Your task to perform on an android device: toggle improve location accuracy Image 0: 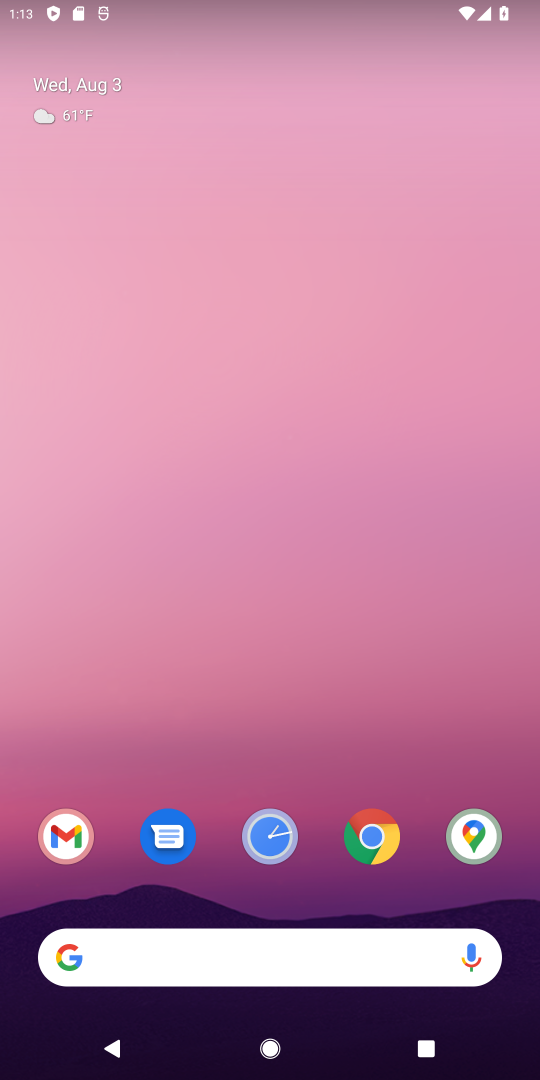
Step 0: drag from (198, 891) to (223, 202)
Your task to perform on an android device: toggle improve location accuracy Image 1: 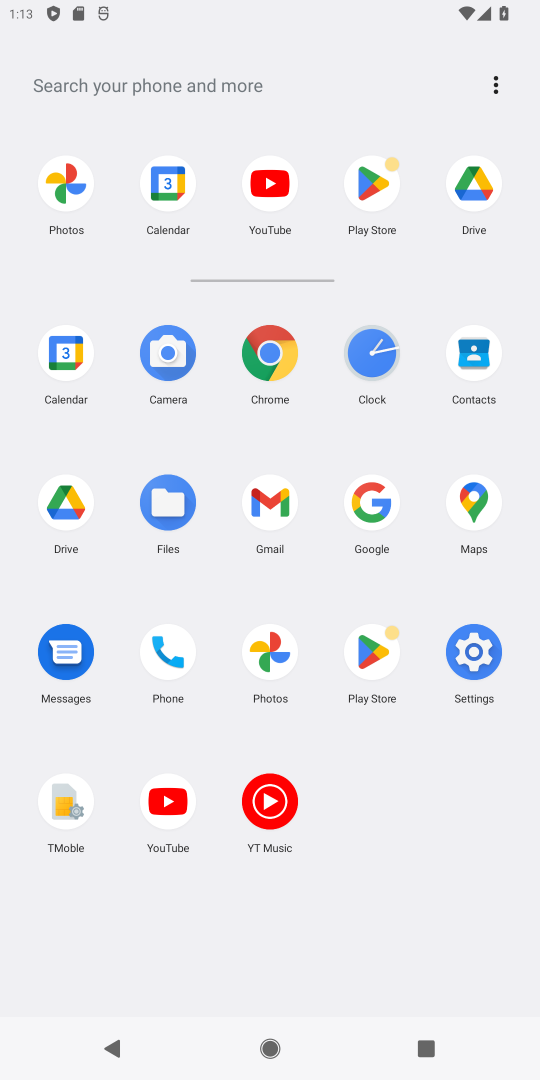
Step 1: click (469, 658)
Your task to perform on an android device: toggle improve location accuracy Image 2: 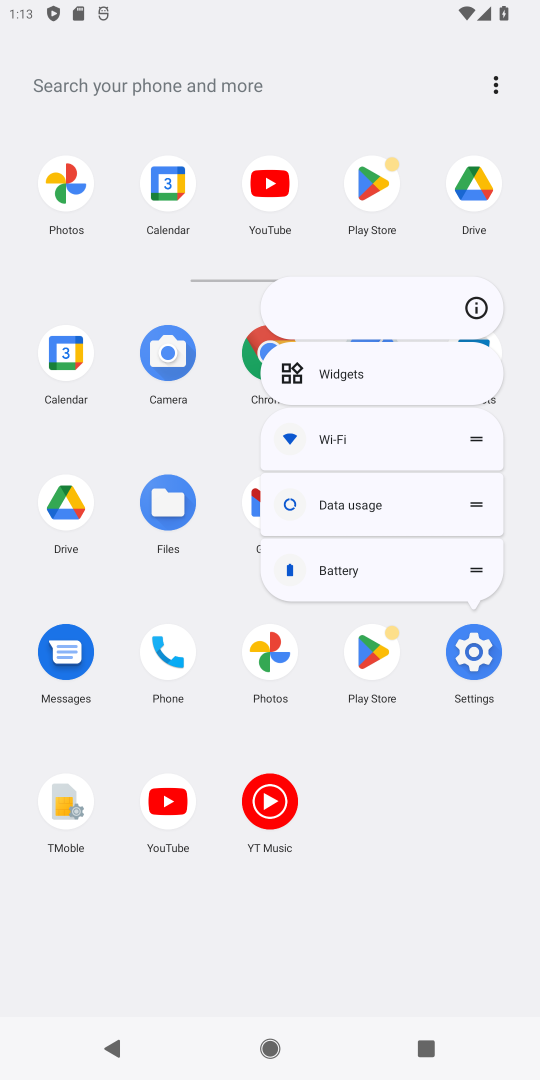
Step 2: click (477, 312)
Your task to perform on an android device: toggle improve location accuracy Image 3: 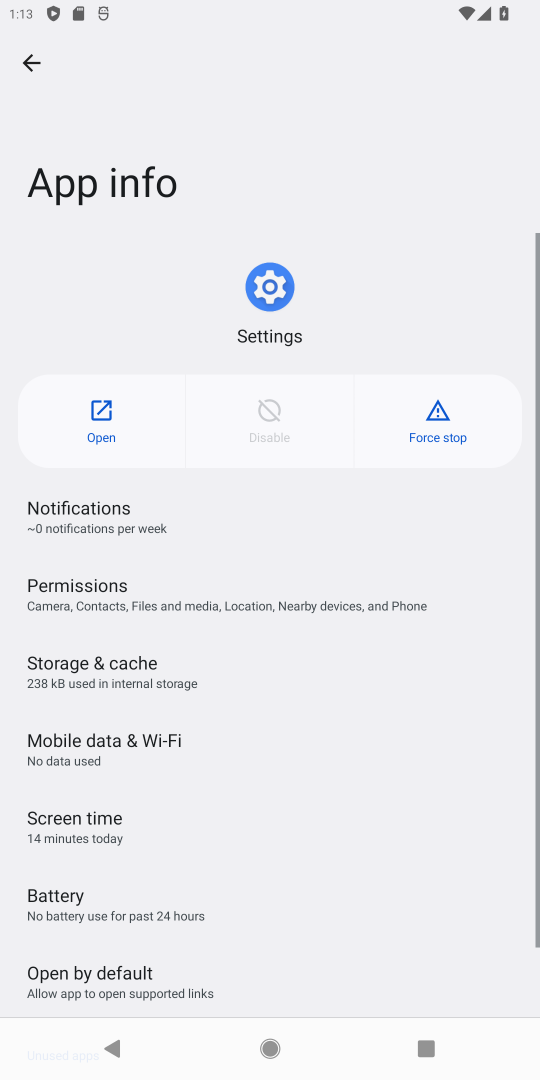
Step 3: click (95, 412)
Your task to perform on an android device: toggle improve location accuracy Image 4: 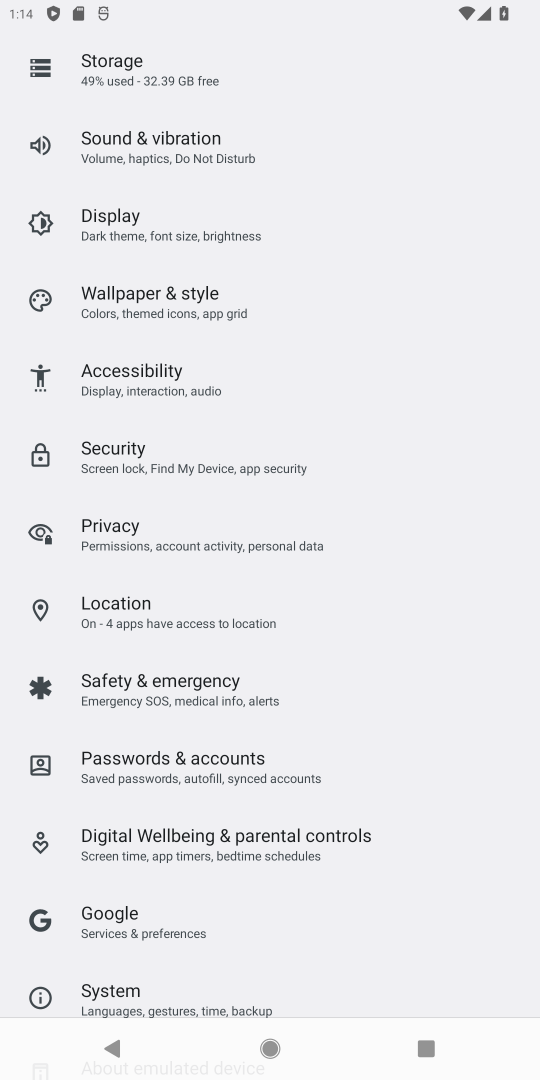
Step 4: drag from (243, 957) to (324, 382)
Your task to perform on an android device: toggle improve location accuracy Image 5: 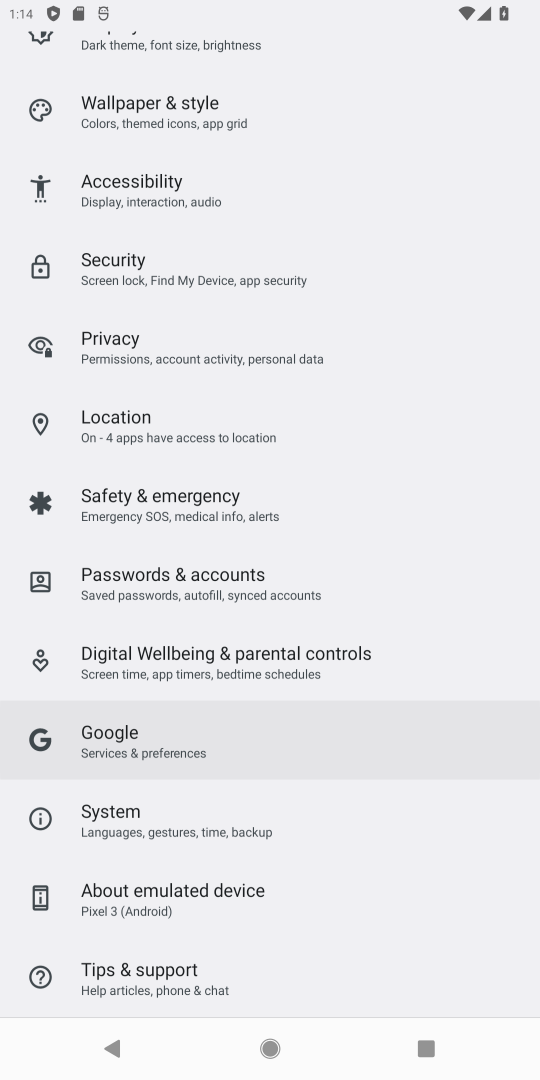
Step 5: drag from (324, 147) to (537, 493)
Your task to perform on an android device: toggle improve location accuracy Image 6: 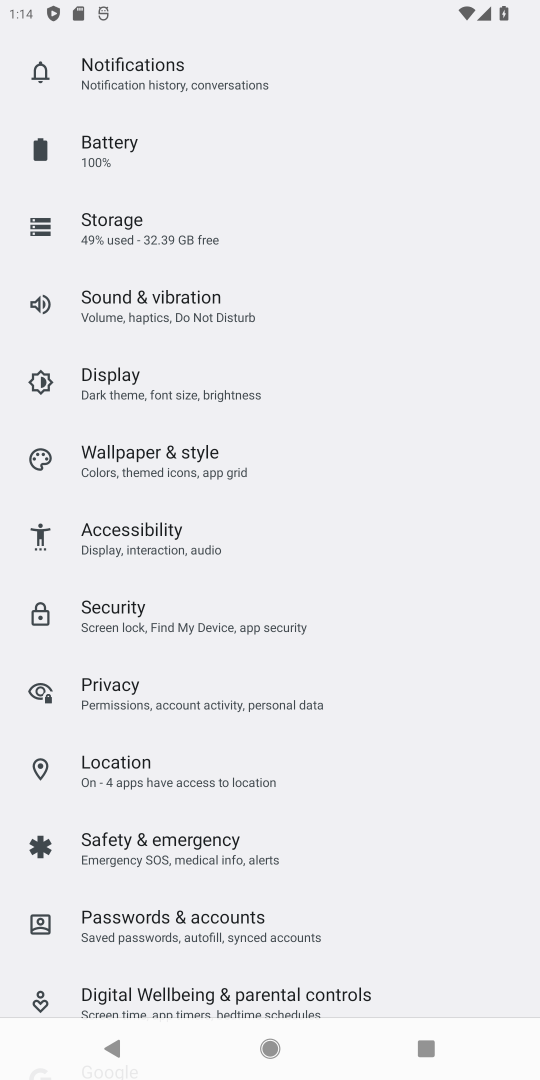
Step 6: drag from (260, 358) to (475, 923)
Your task to perform on an android device: toggle improve location accuracy Image 7: 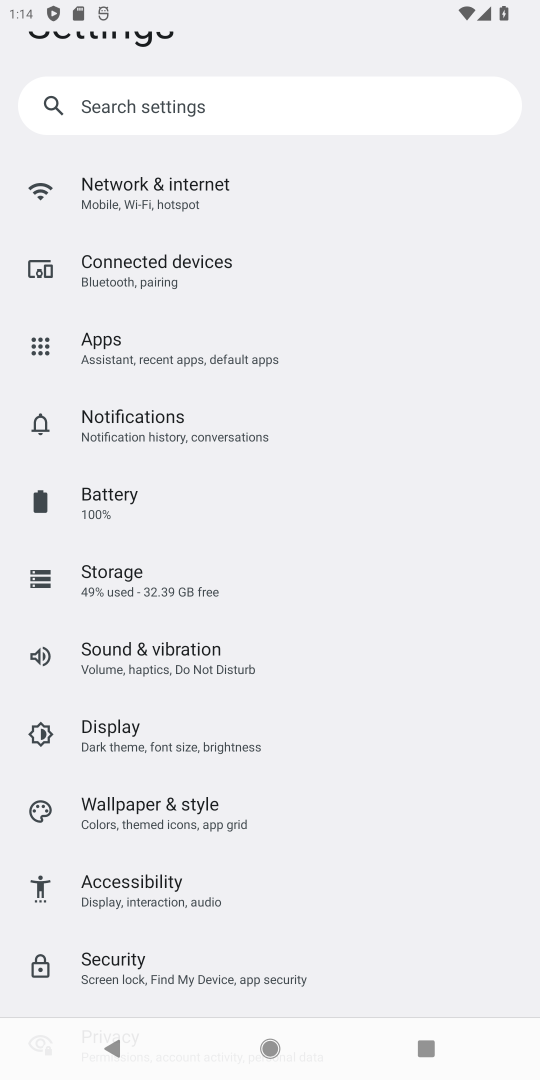
Step 7: drag from (248, 349) to (416, 1015)
Your task to perform on an android device: toggle improve location accuracy Image 8: 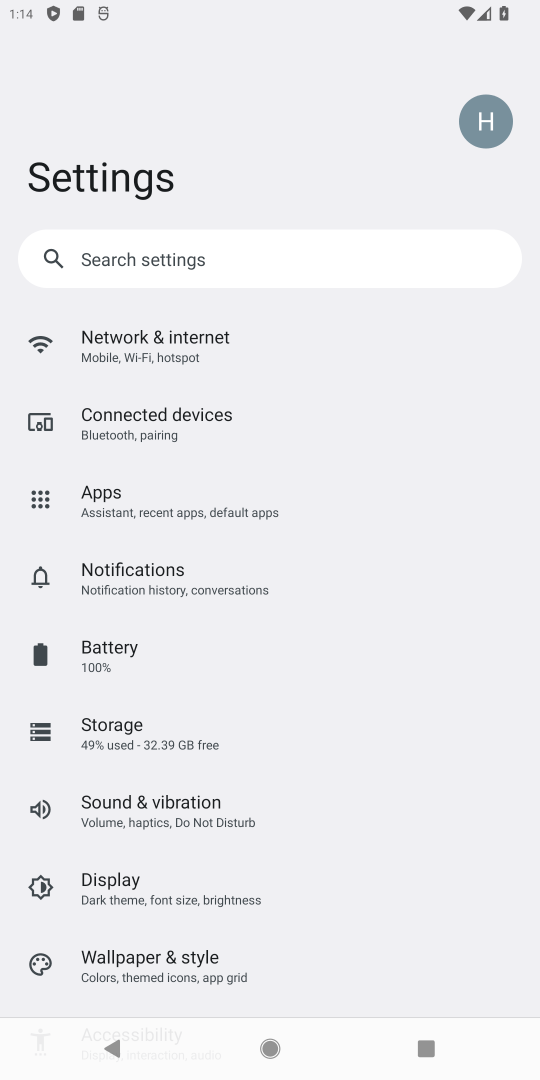
Step 8: drag from (222, 351) to (300, 861)
Your task to perform on an android device: toggle improve location accuracy Image 9: 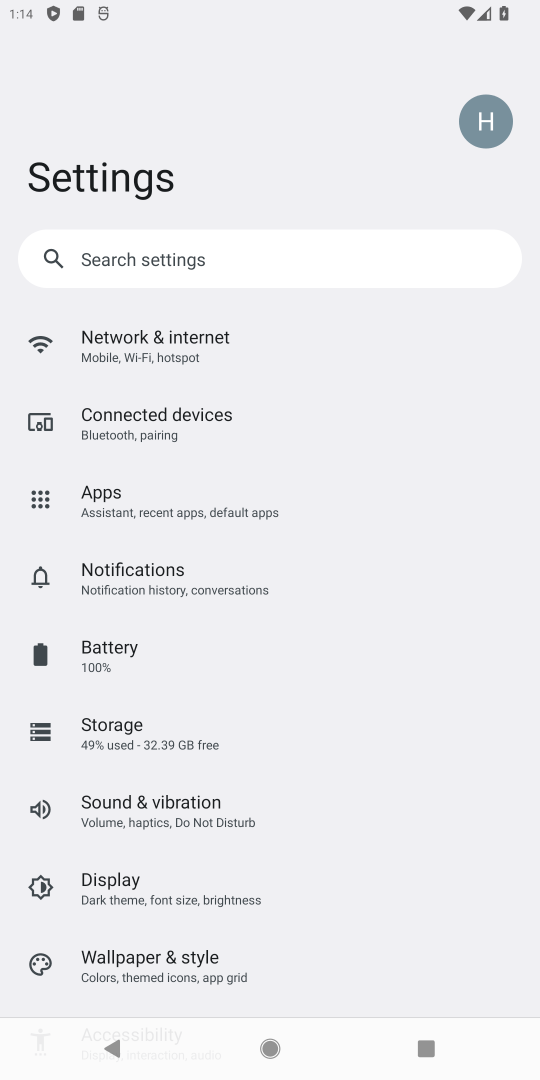
Step 9: drag from (283, 807) to (341, 303)
Your task to perform on an android device: toggle improve location accuracy Image 10: 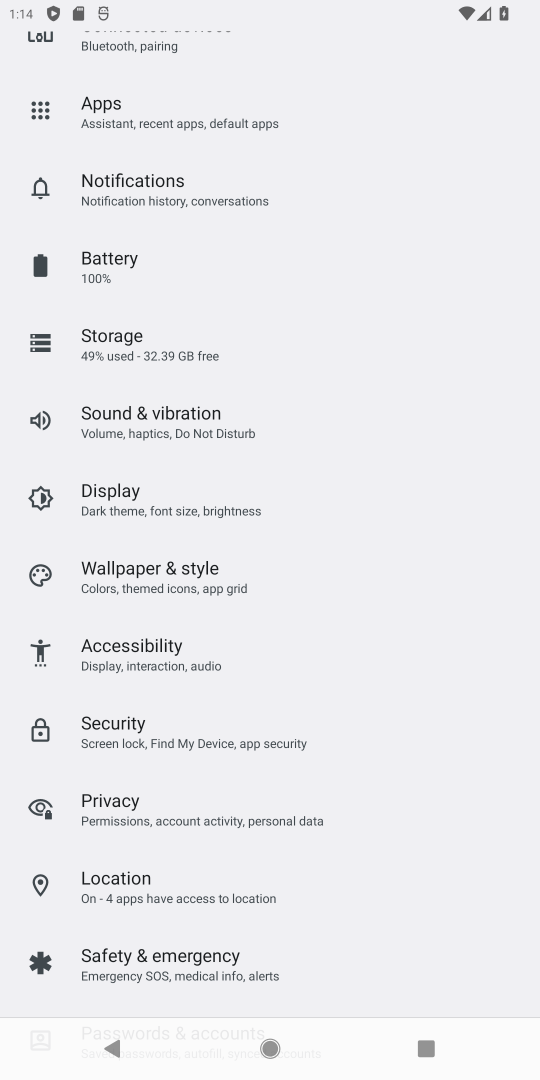
Step 10: drag from (151, 290) to (337, 947)
Your task to perform on an android device: toggle improve location accuracy Image 11: 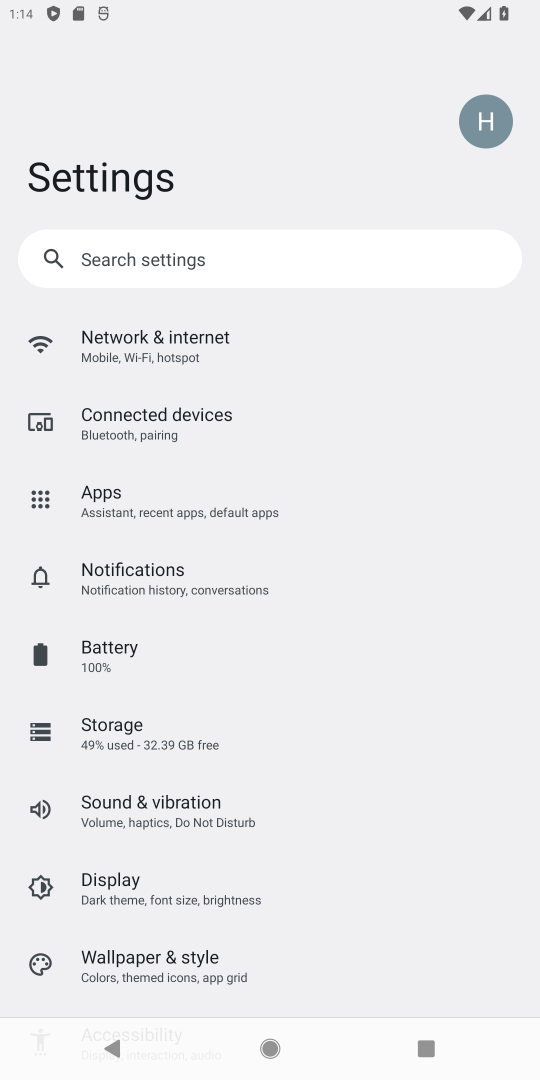
Step 11: drag from (230, 558) to (284, 952)
Your task to perform on an android device: toggle improve location accuracy Image 12: 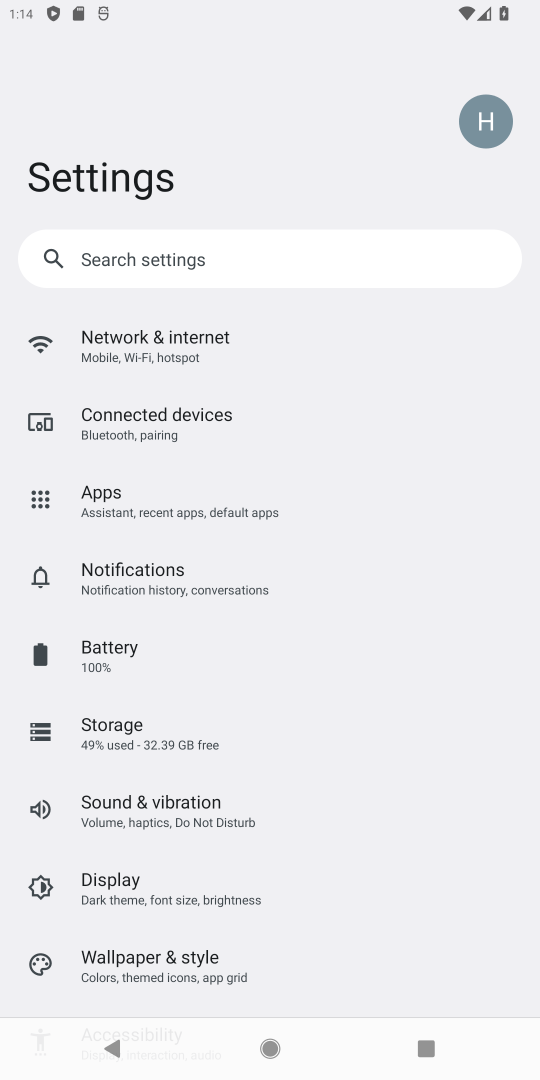
Step 12: drag from (210, 963) to (358, 312)
Your task to perform on an android device: toggle improve location accuracy Image 13: 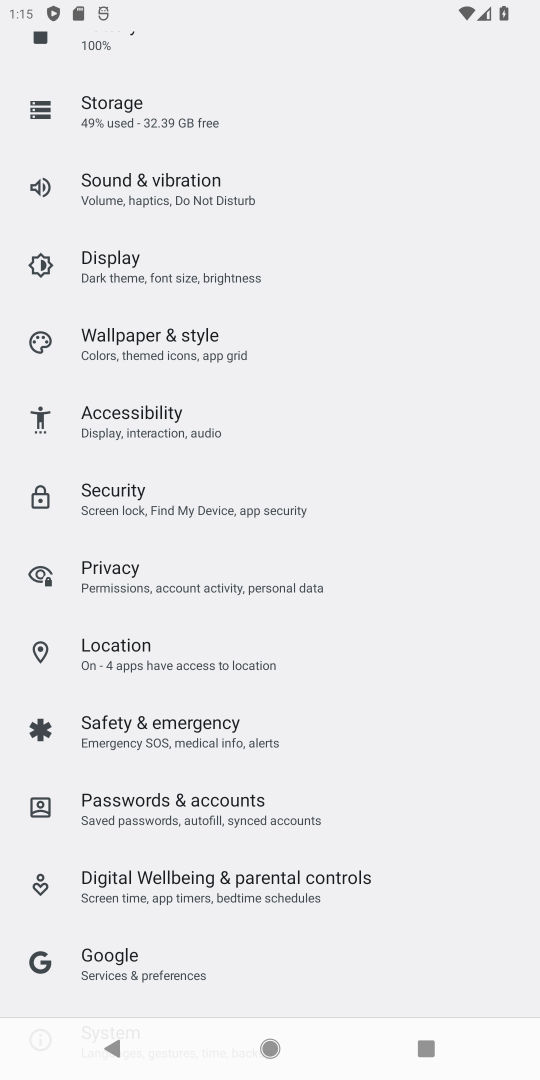
Step 13: click (148, 637)
Your task to perform on an android device: toggle improve location accuracy Image 14: 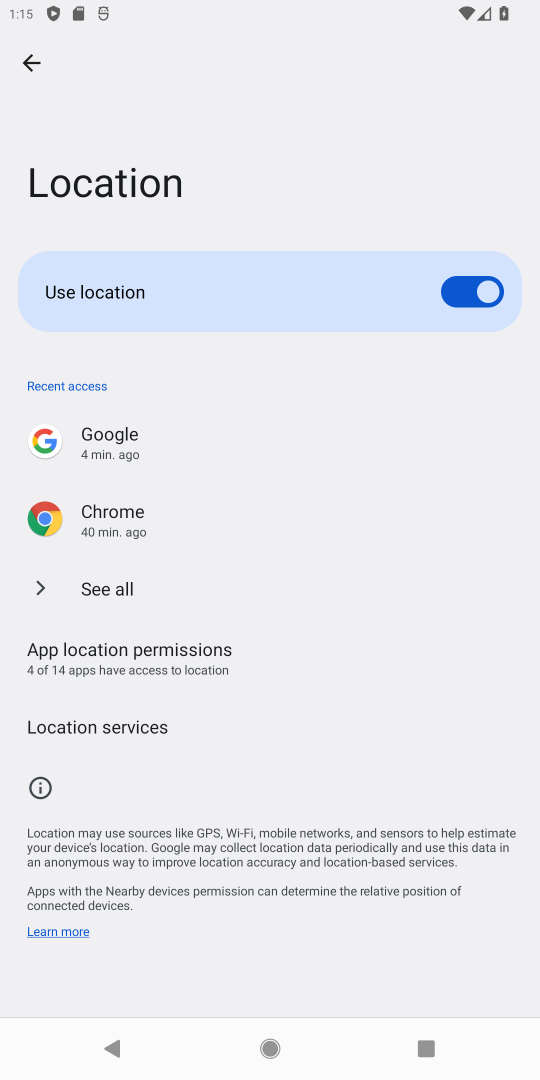
Step 14: drag from (227, 801) to (271, 388)
Your task to perform on an android device: toggle improve location accuracy Image 15: 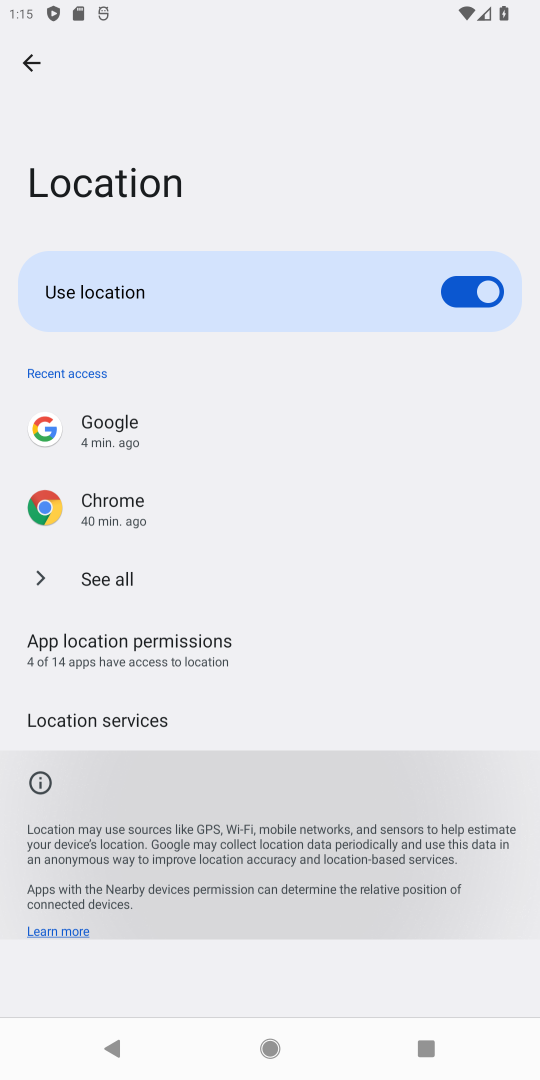
Step 15: drag from (262, 454) to (264, 1014)
Your task to perform on an android device: toggle improve location accuracy Image 16: 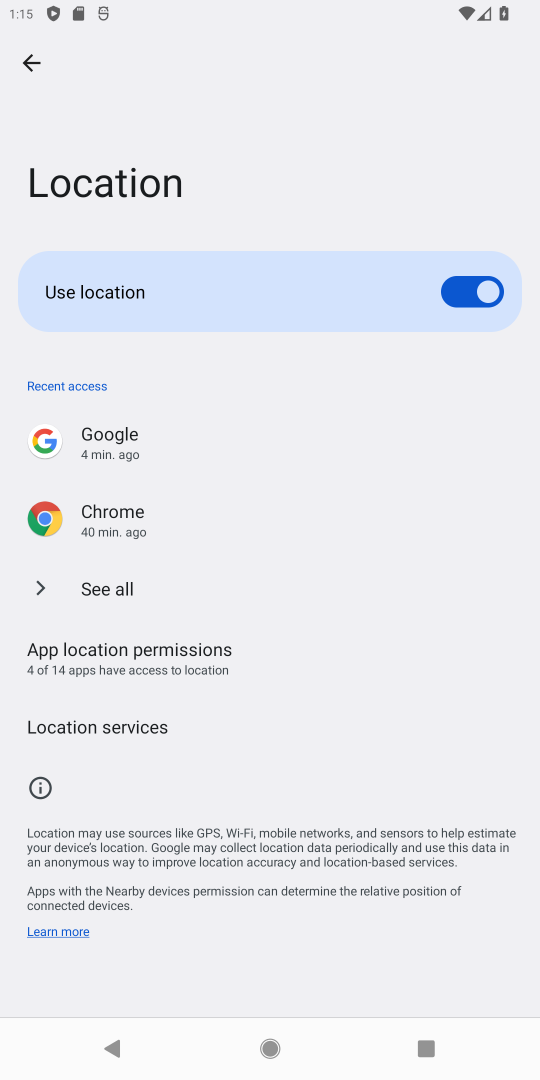
Step 16: drag from (226, 751) to (297, 308)
Your task to perform on an android device: toggle improve location accuracy Image 17: 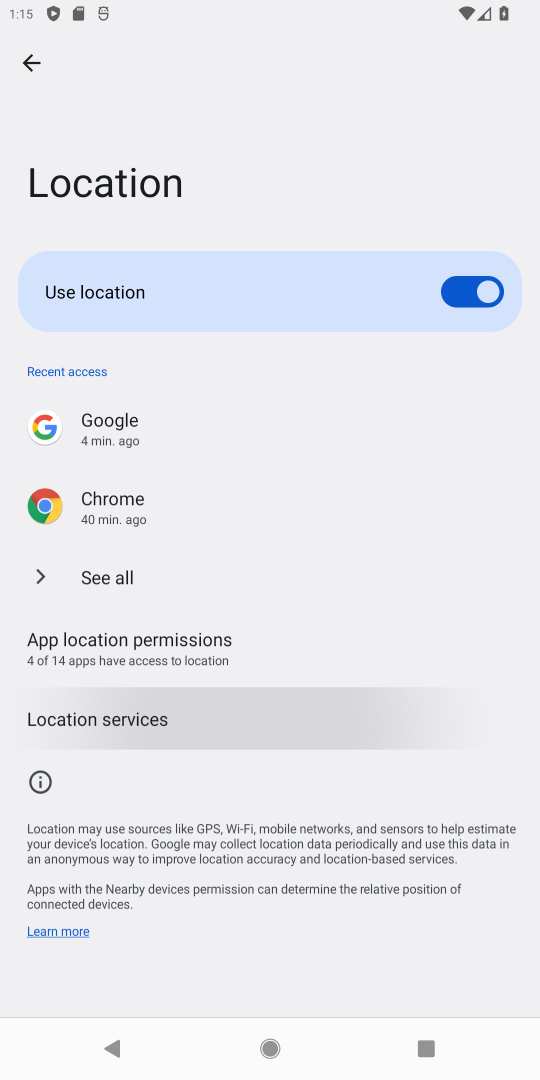
Step 17: drag from (313, 204) to (313, 603)
Your task to perform on an android device: toggle improve location accuracy Image 18: 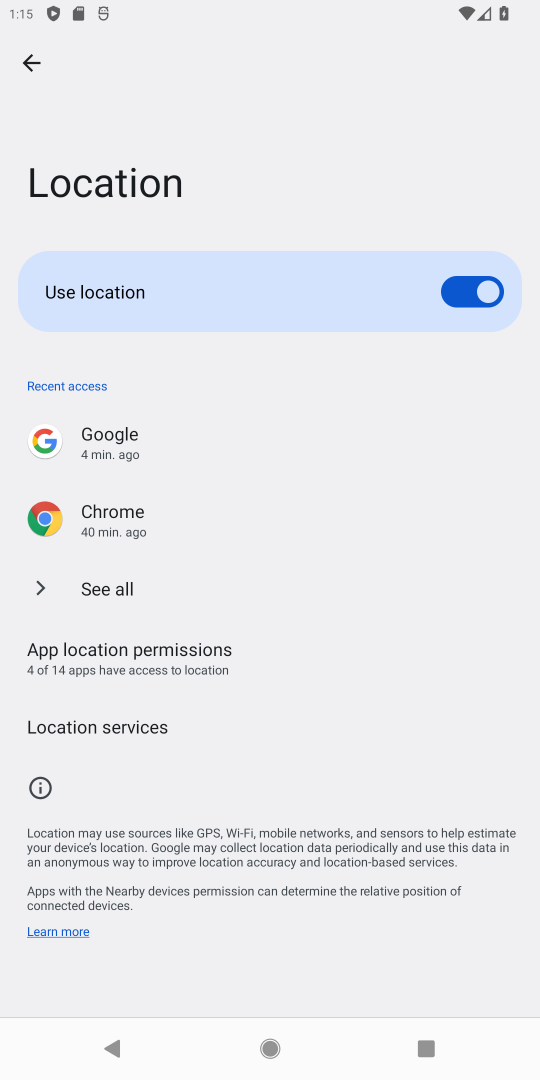
Step 18: drag from (180, 872) to (305, 1075)
Your task to perform on an android device: toggle improve location accuracy Image 19: 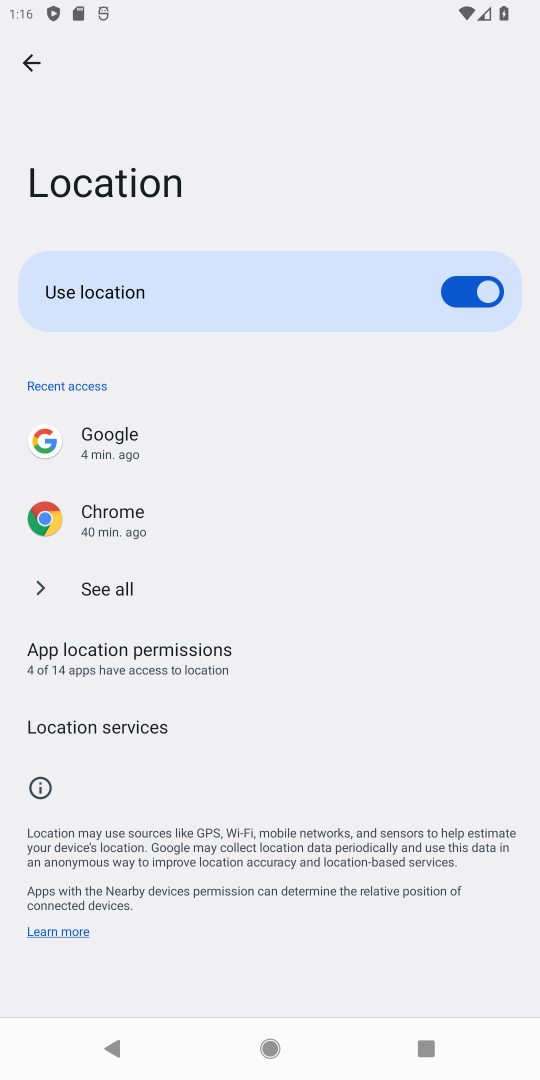
Step 19: drag from (159, 816) to (188, 399)
Your task to perform on an android device: toggle improve location accuracy Image 20: 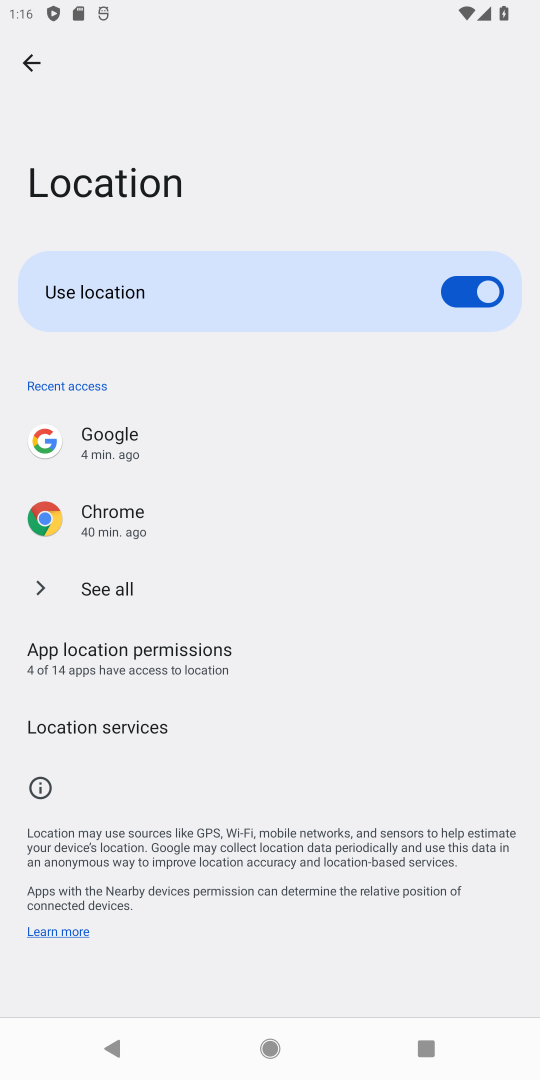
Step 20: drag from (271, 899) to (331, 532)
Your task to perform on an android device: toggle improve location accuracy Image 21: 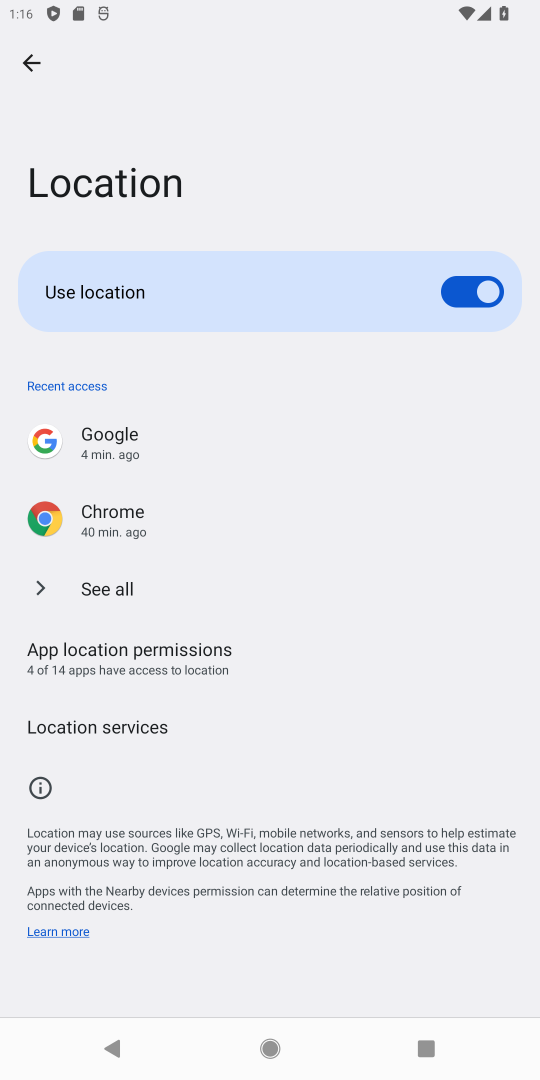
Step 21: drag from (232, 731) to (302, 402)
Your task to perform on an android device: toggle improve location accuracy Image 22: 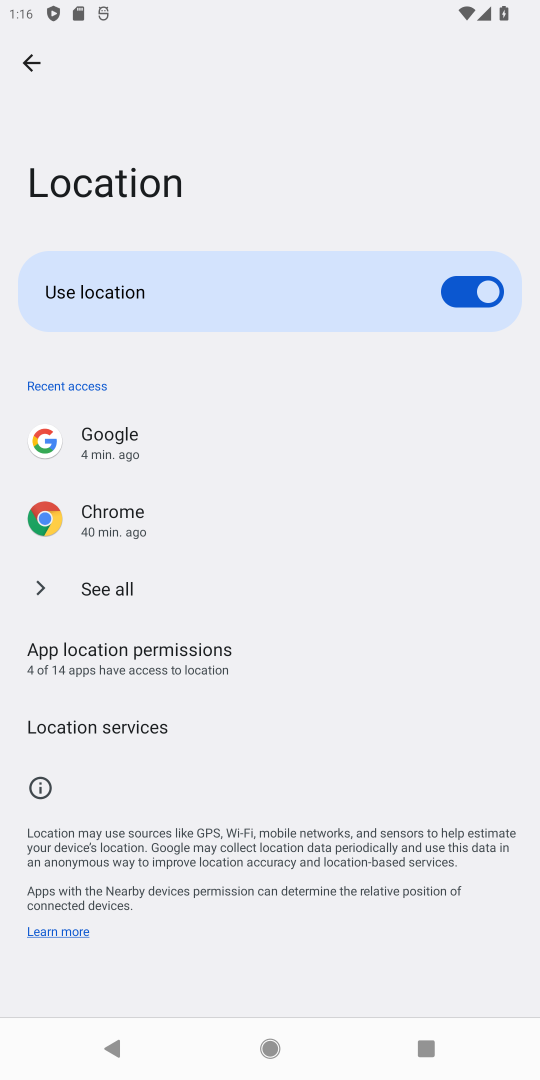
Step 22: click (101, 587)
Your task to perform on an android device: toggle improve location accuracy Image 23: 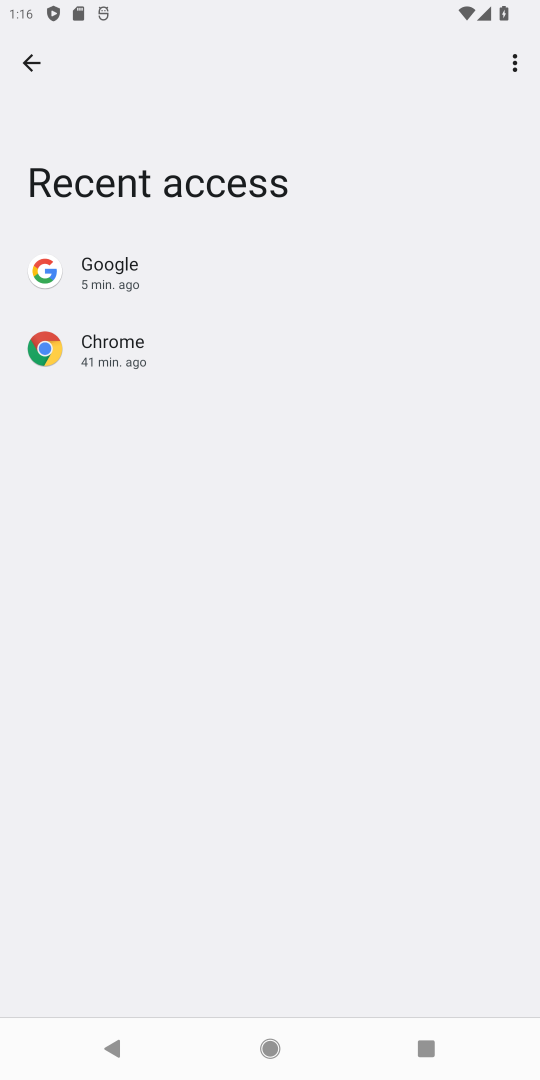
Step 23: drag from (289, 827) to (278, 397)
Your task to perform on an android device: toggle improve location accuracy Image 24: 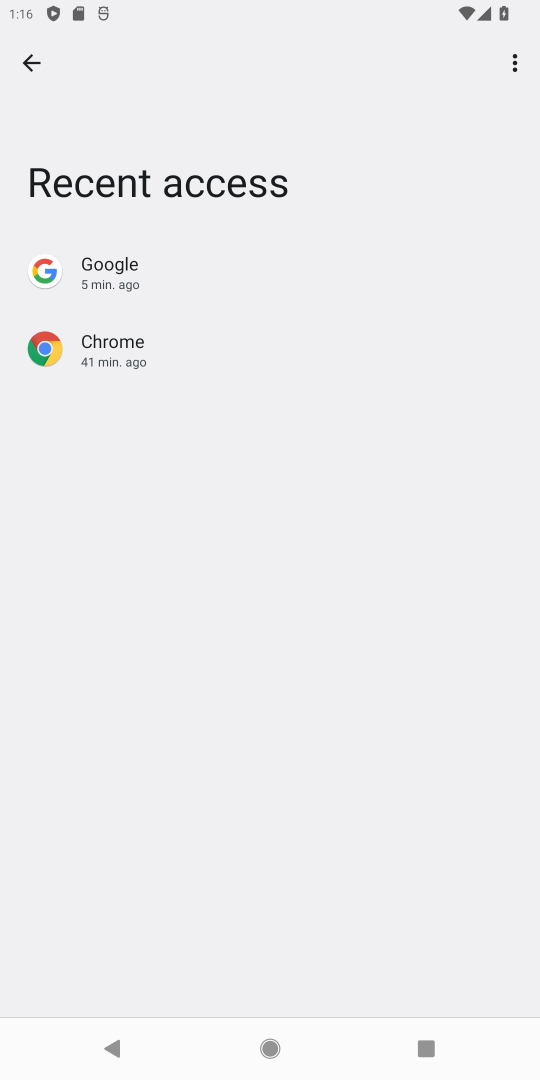
Step 24: click (21, 68)
Your task to perform on an android device: toggle improve location accuracy Image 25: 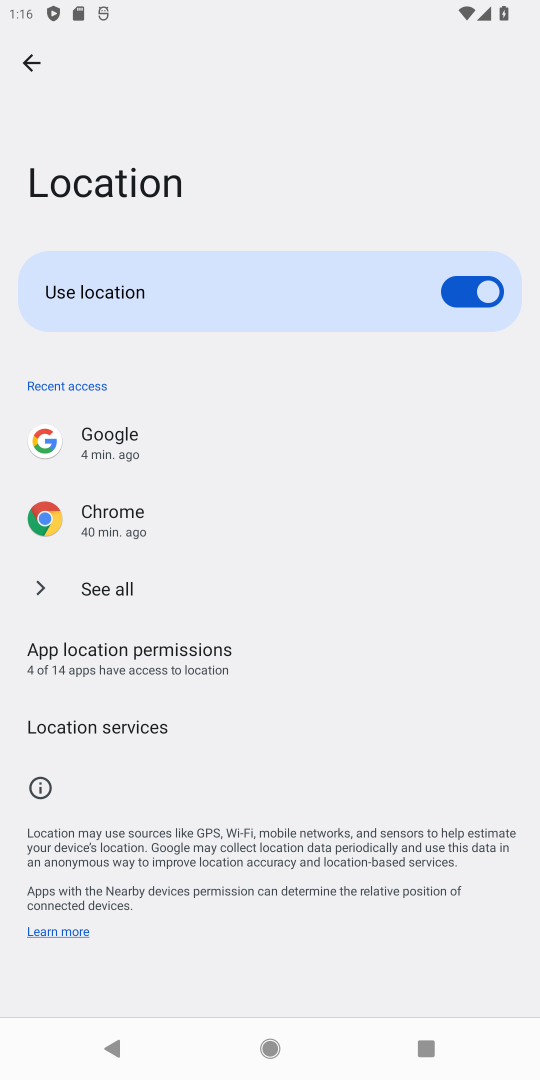
Step 25: drag from (314, 774) to (350, 227)
Your task to perform on an android device: toggle improve location accuracy Image 26: 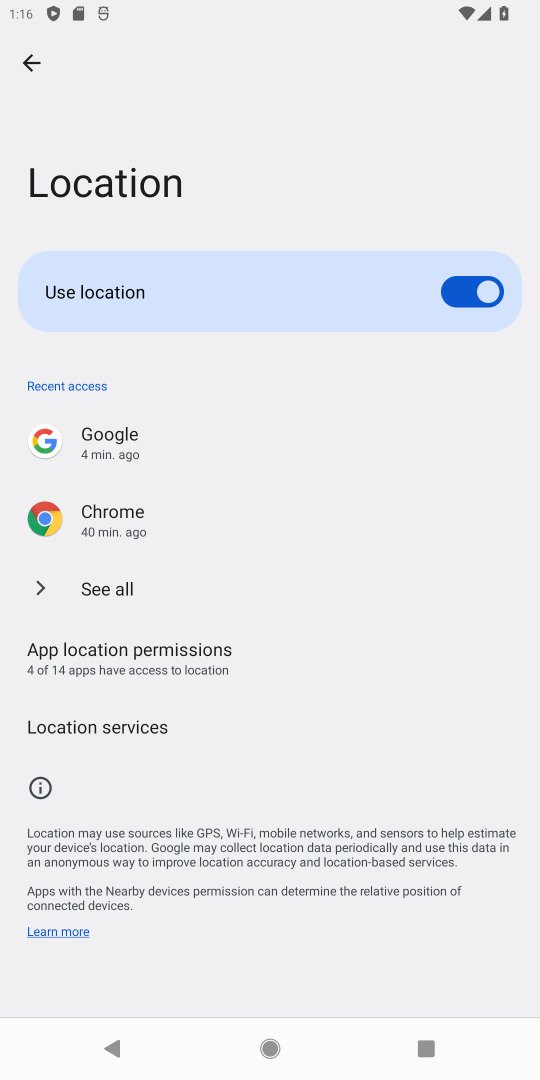
Step 26: click (157, 724)
Your task to perform on an android device: toggle improve location accuracy Image 27: 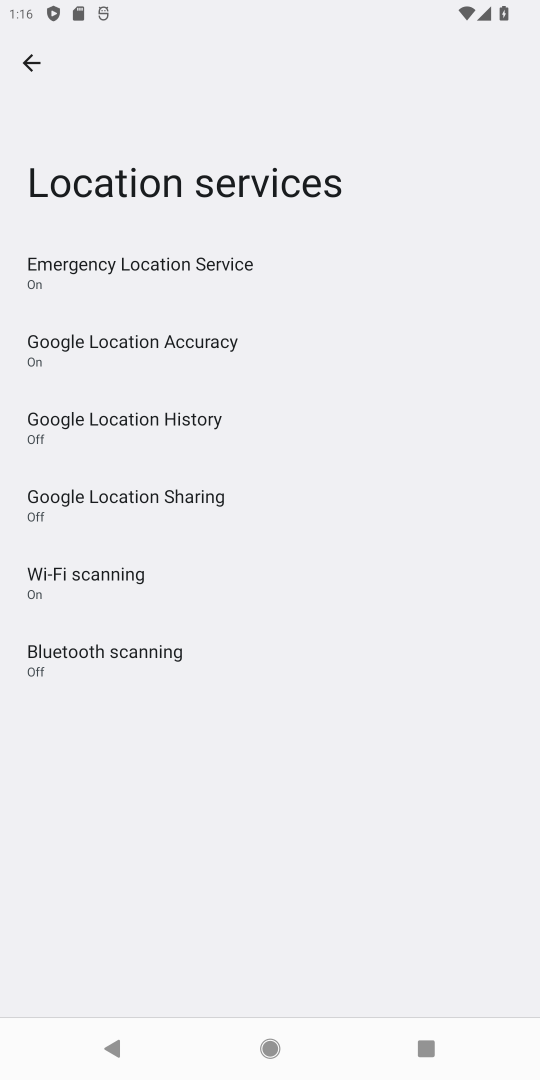
Step 27: drag from (203, 838) to (271, 444)
Your task to perform on an android device: toggle improve location accuracy Image 28: 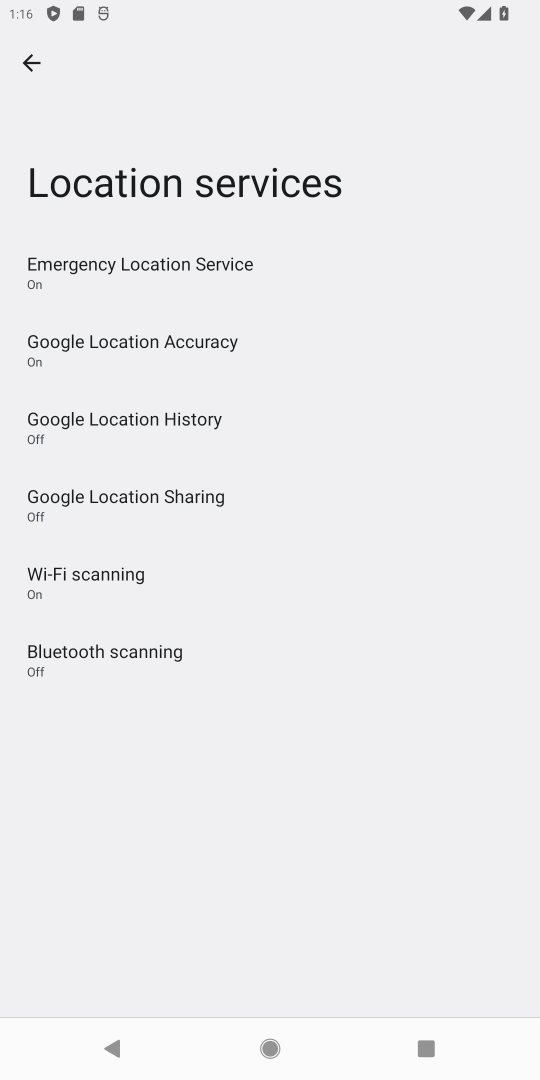
Step 28: drag from (270, 815) to (296, 496)
Your task to perform on an android device: toggle improve location accuracy Image 29: 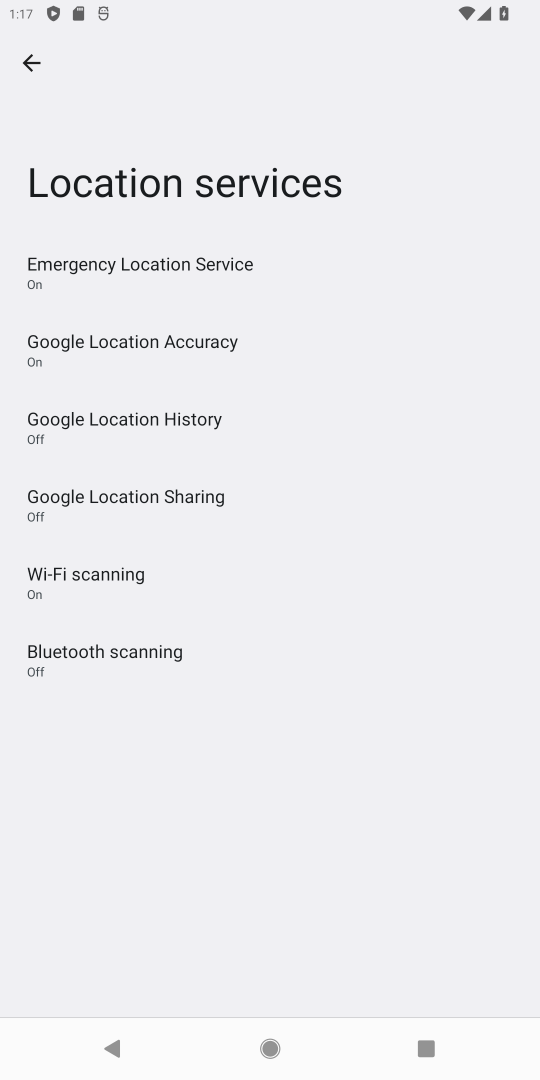
Step 29: drag from (172, 826) to (409, 367)
Your task to perform on an android device: toggle improve location accuracy Image 30: 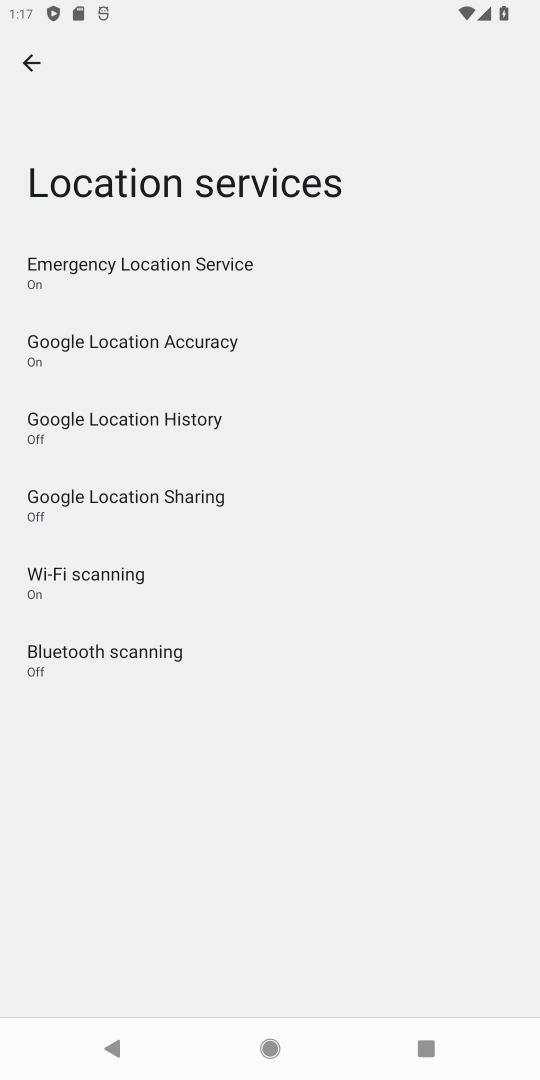
Step 30: drag from (96, 698) to (129, 501)
Your task to perform on an android device: toggle improve location accuracy Image 31: 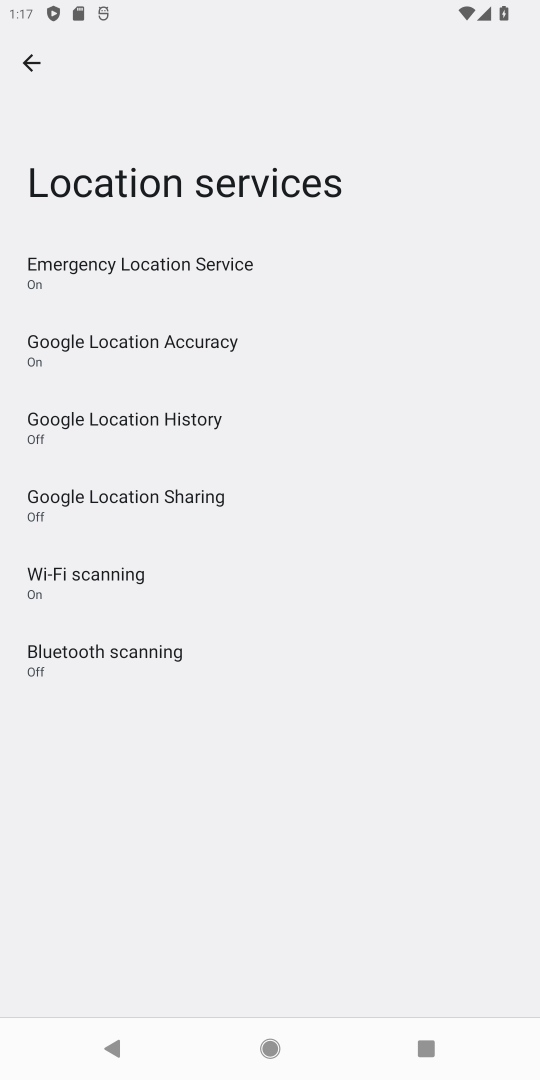
Step 31: click (187, 359)
Your task to perform on an android device: toggle improve location accuracy Image 32: 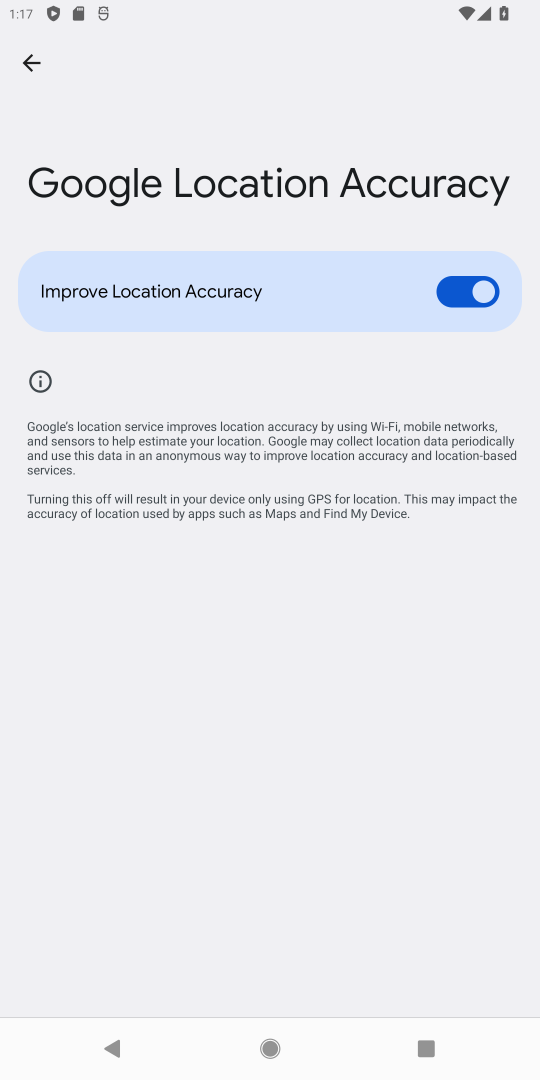
Step 32: task complete